Your task to perform on an android device: set the timer Image 0: 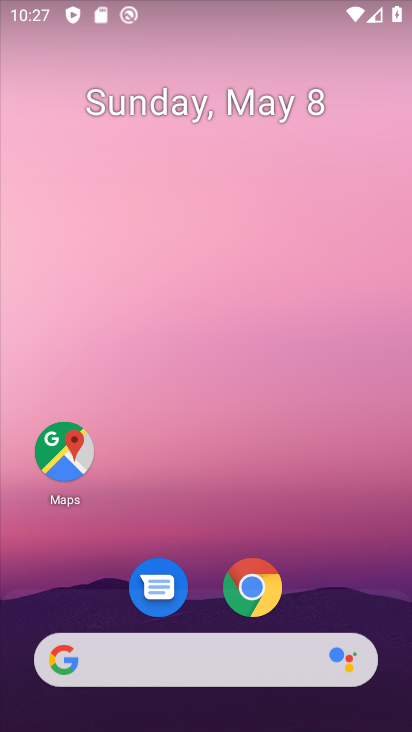
Step 0: drag from (358, 624) to (126, 62)
Your task to perform on an android device: set the timer Image 1: 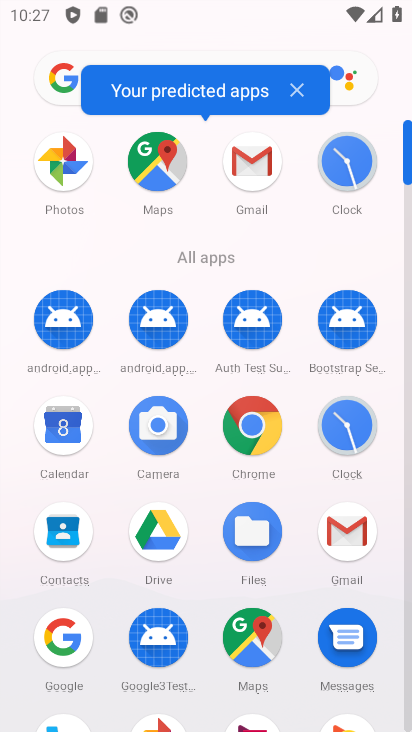
Step 1: click (351, 429)
Your task to perform on an android device: set the timer Image 2: 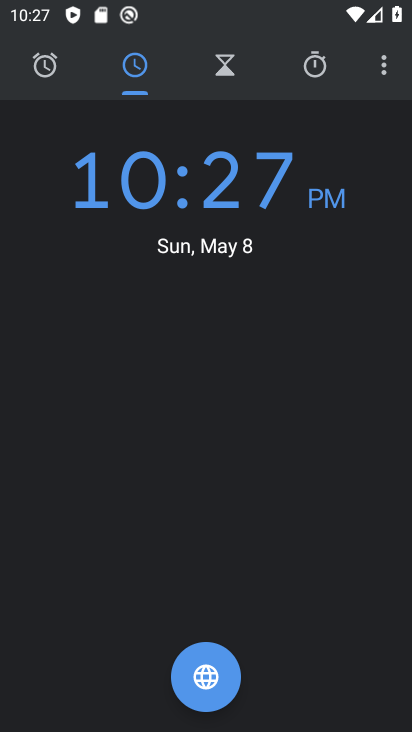
Step 2: click (222, 66)
Your task to perform on an android device: set the timer Image 3: 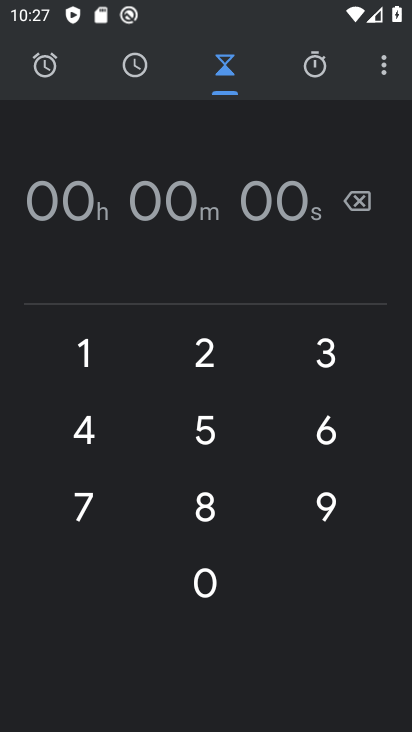
Step 3: click (206, 507)
Your task to perform on an android device: set the timer Image 4: 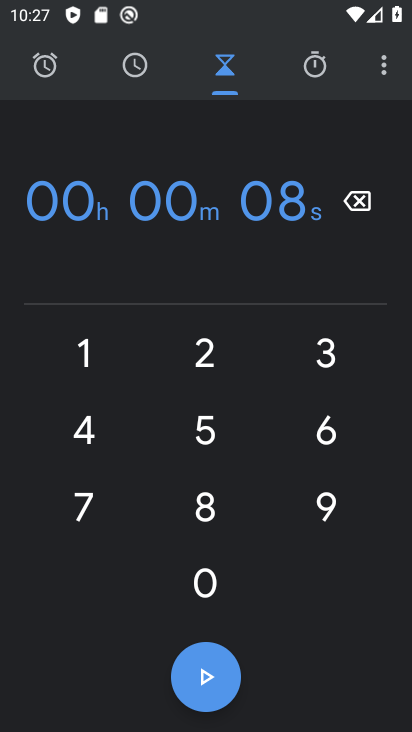
Step 4: click (203, 436)
Your task to perform on an android device: set the timer Image 5: 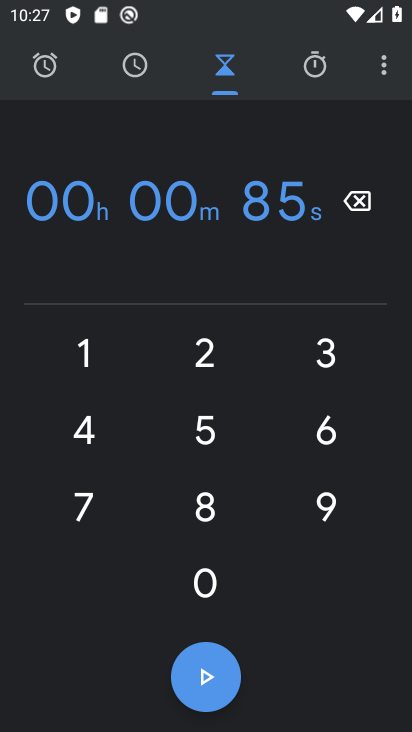
Step 5: click (92, 354)
Your task to perform on an android device: set the timer Image 6: 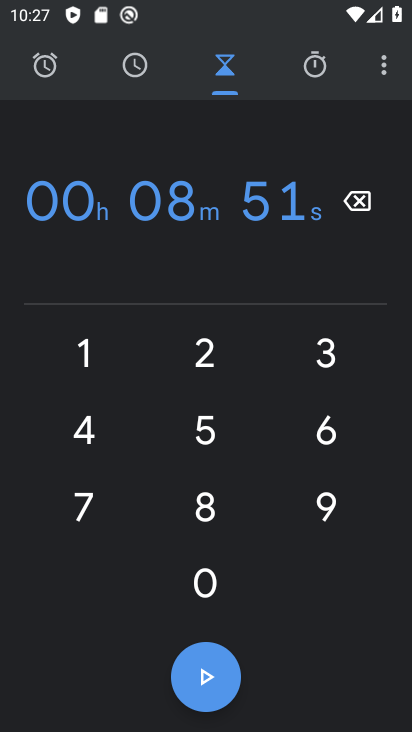
Step 6: click (83, 431)
Your task to perform on an android device: set the timer Image 7: 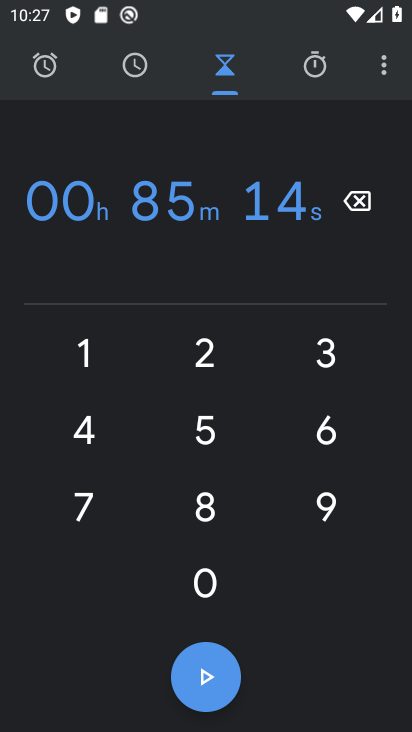
Step 7: click (328, 496)
Your task to perform on an android device: set the timer Image 8: 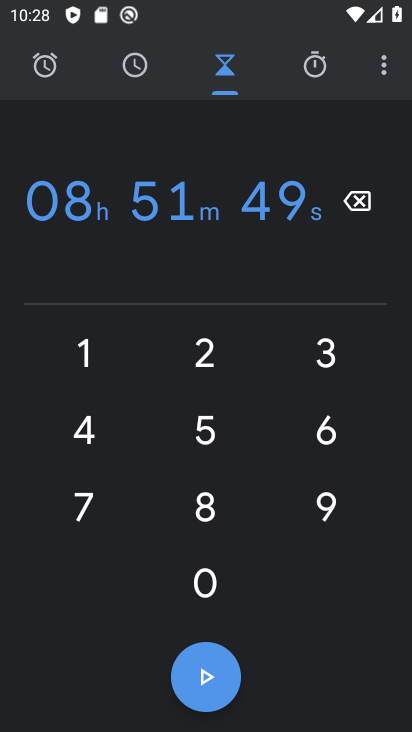
Step 8: click (207, 682)
Your task to perform on an android device: set the timer Image 9: 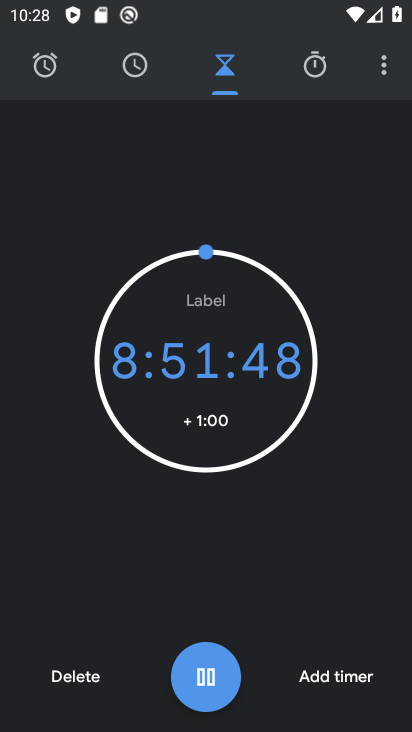
Step 9: click (322, 671)
Your task to perform on an android device: set the timer Image 10: 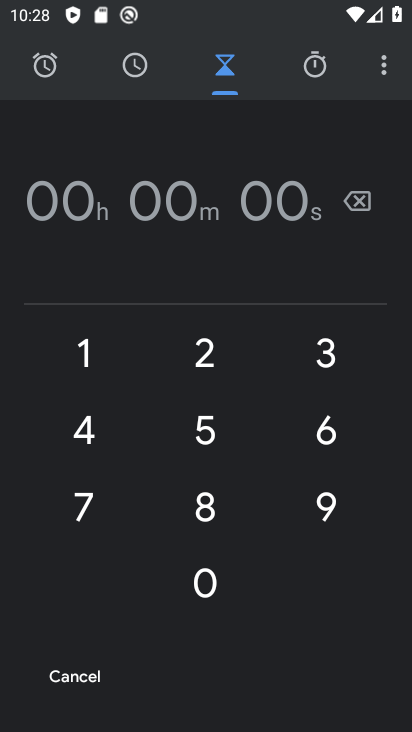
Step 10: task complete